Your task to perform on an android device: change timer sound Image 0: 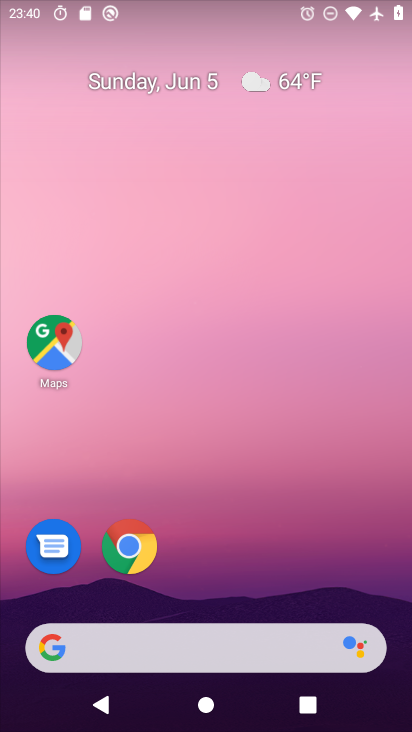
Step 0: click (332, 106)
Your task to perform on an android device: change timer sound Image 1: 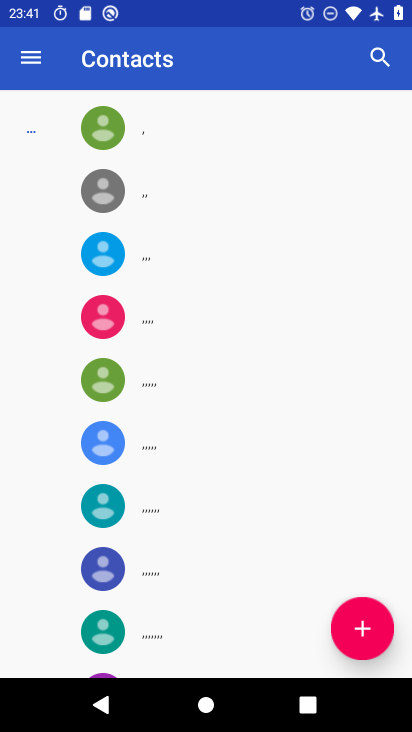
Step 1: press home button
Your task to perform on an android device: change timer sound Image 2: 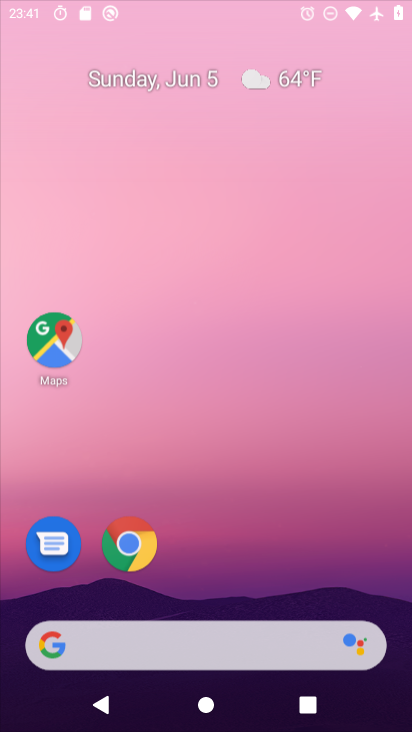
Step 2: drag from (216, 513) to (277, 32)
Your task to perform on an android device: change timer sound Image 3: 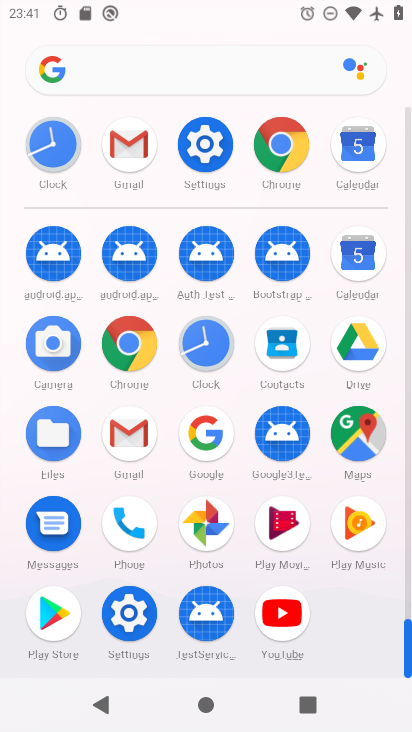
Step 3: click (203, 343)
Your task to perform on an android device: change timer sound Image 4: 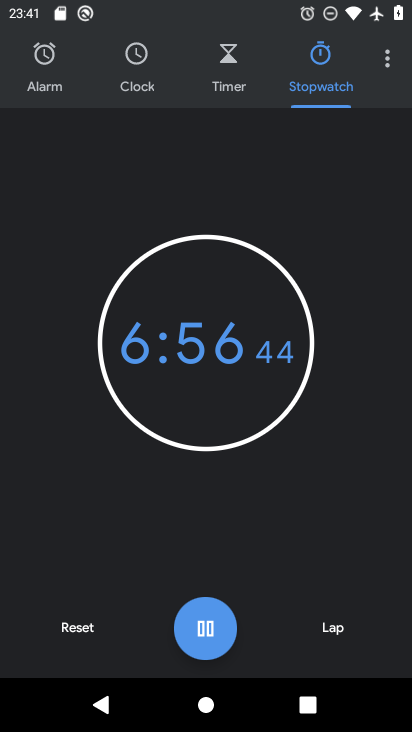
Step 4: click (204, 651)
Your task to perform on an android device: change timer sound Image 5: 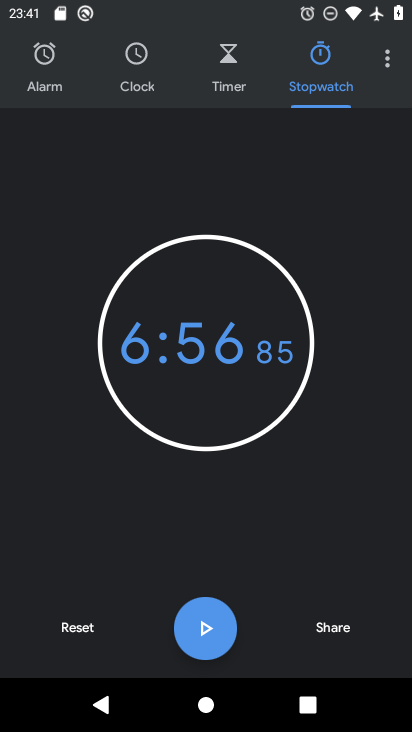
Step 5: click (385, 58)
Your task to perform on an android device: change timer sound Image 6: 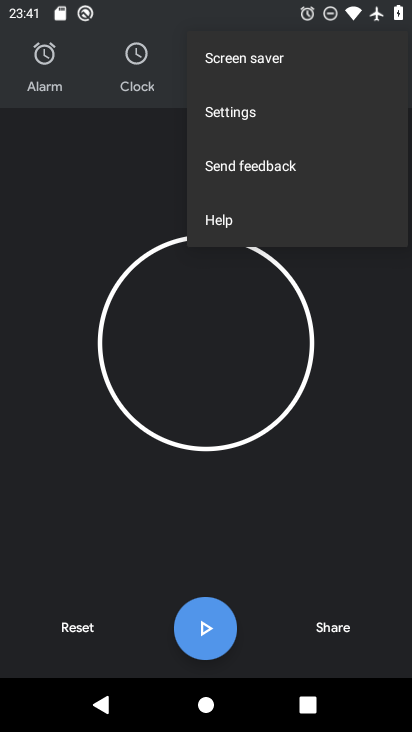
Step 6: click (243, 120)
Your task to perform on an android device: change timer sound Image 7: 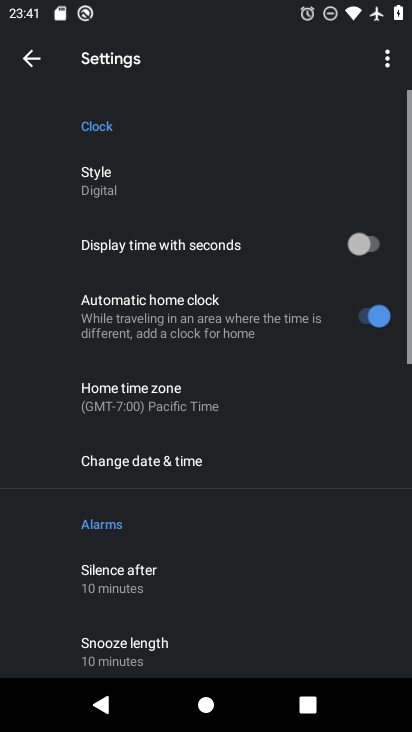
Step 7: drag from (181, 531) to (210, 126)
Your task to perform on an android device: change timer sound Image 8: 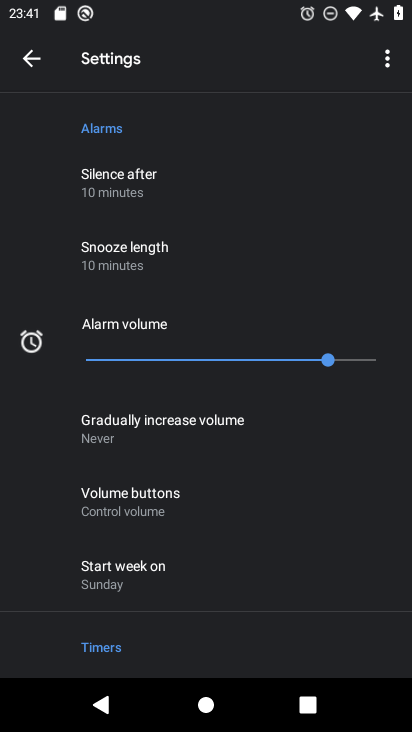
Step 8: drag from (151, 576) to (207, 91)
Your task to perform on an android device: change timer sound Image 9: 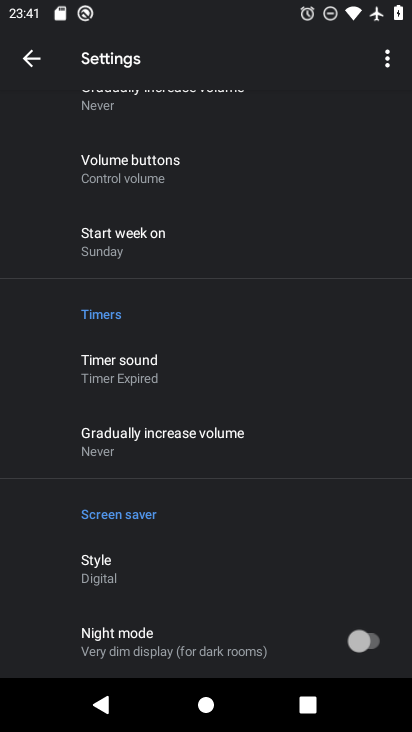
Step 9: click (177, 358)
Your task to perform on an android device: change timer sound Image 10: 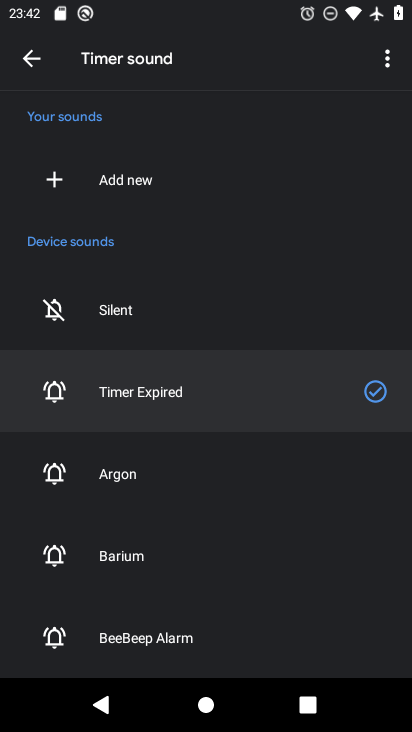
Step 10: click (186, 465)
Your task to perform on an android device: change timer sound Image 11: 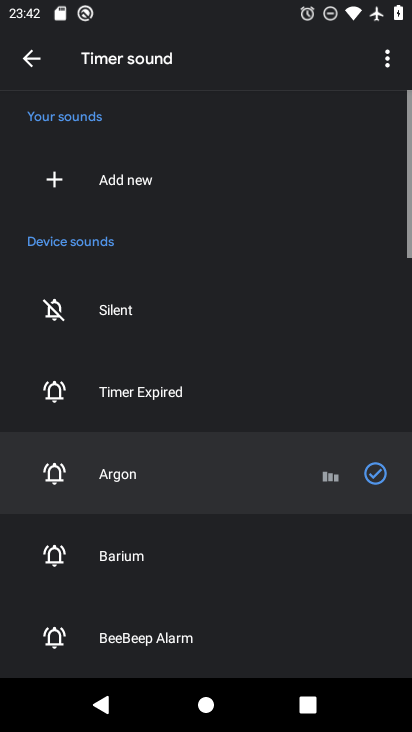
Step 11: task complete